Your task to perform on an android device: Open maps Image 0: 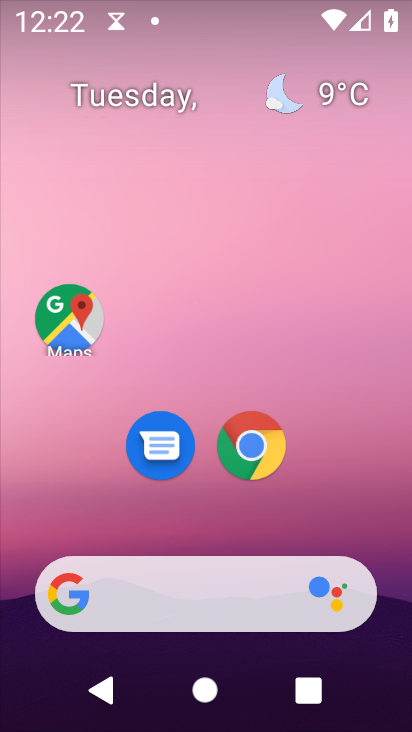
Step 0: drag from (227, 552) to (280, 5)
Your task to perform on an android device: Open maps Image 1: 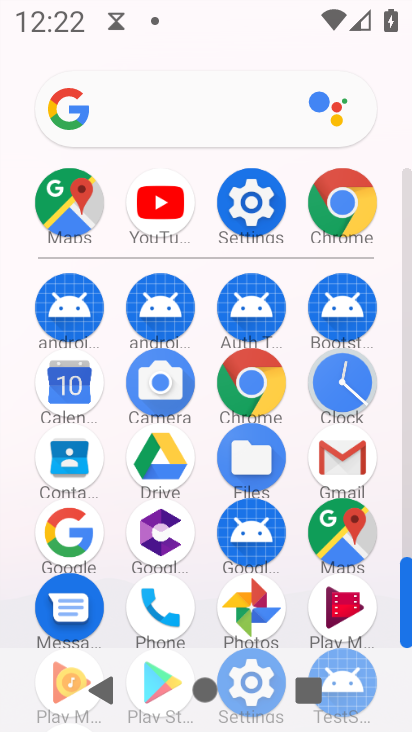
Step 1: click (343, 535)
Your task to perform on an android device: Open maps Image 2: 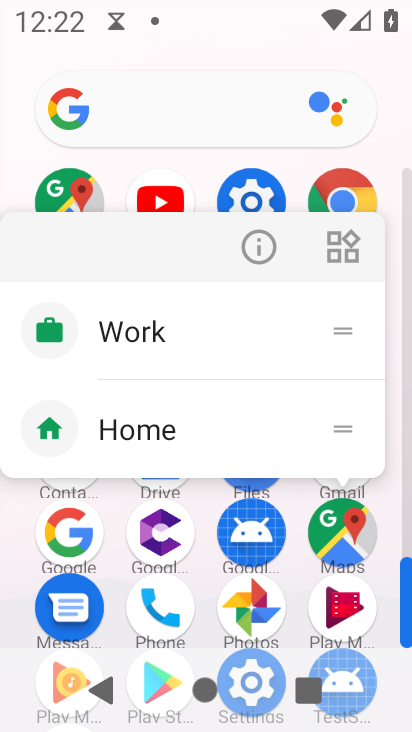
Step 2: click (331, 527)
Your task to perform on an android device: Open maps Image 3: 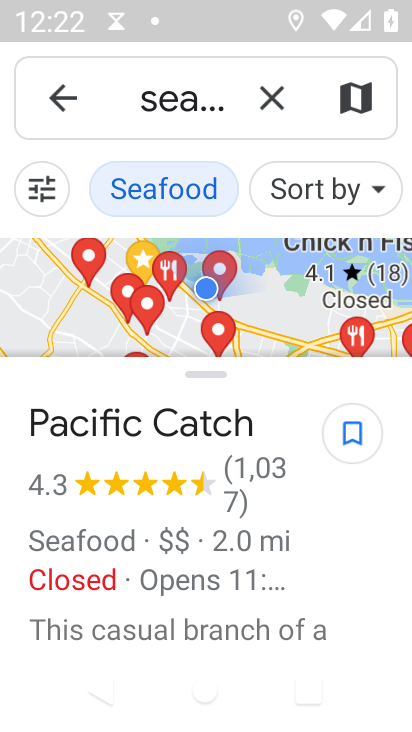
Step 3: press back button
Your task to perform on an android device: Open maps Image 4: 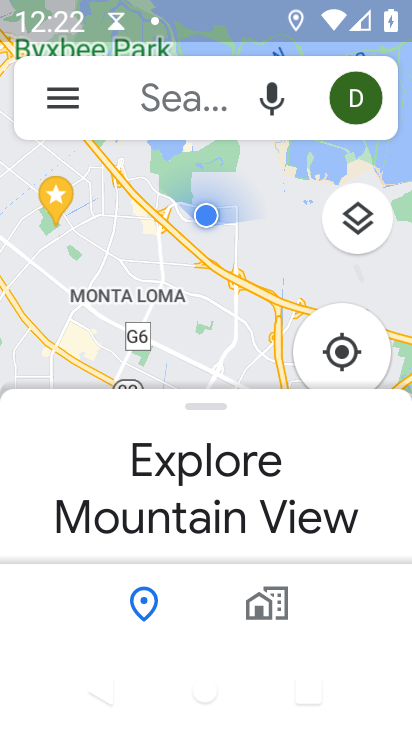
Step 4: press back button
Your task to perform on an android device: Open maps Image 5: 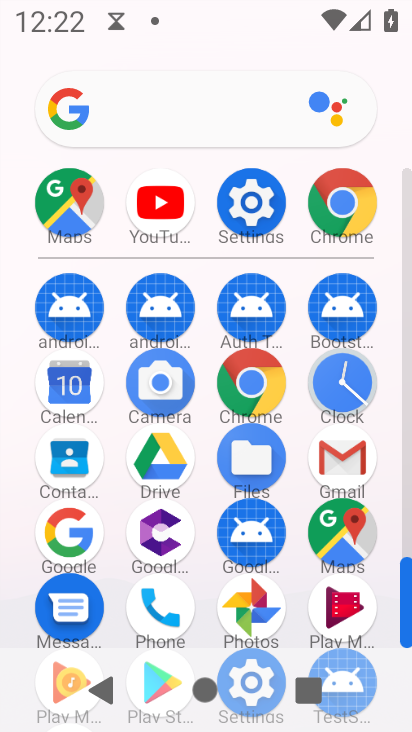
Step 5: click (334, 523)
Your task to perform on an android device: Open maps Image 6: 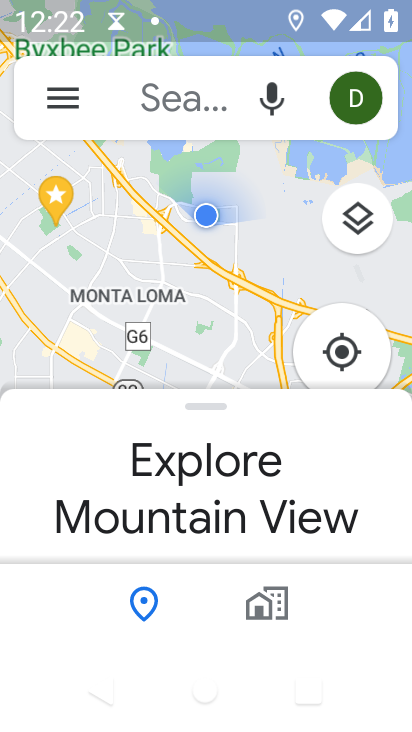
Step 6: task complete